Your task to perform on an android device: Go to Google maps Image 0: 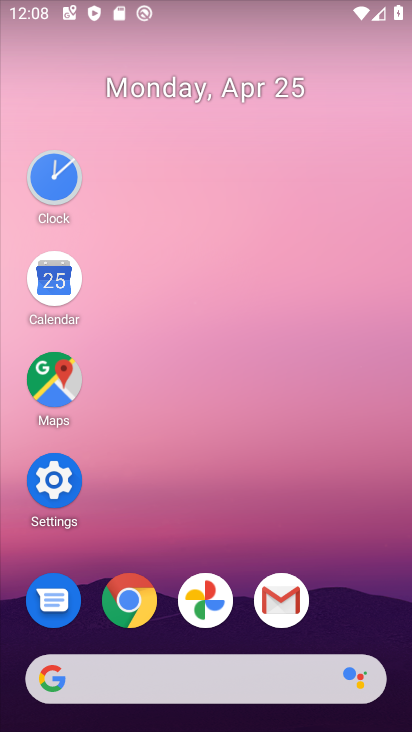
Step 0: click (50, 175)
Your task to perform on an android device: Go to Google maps Image 1: 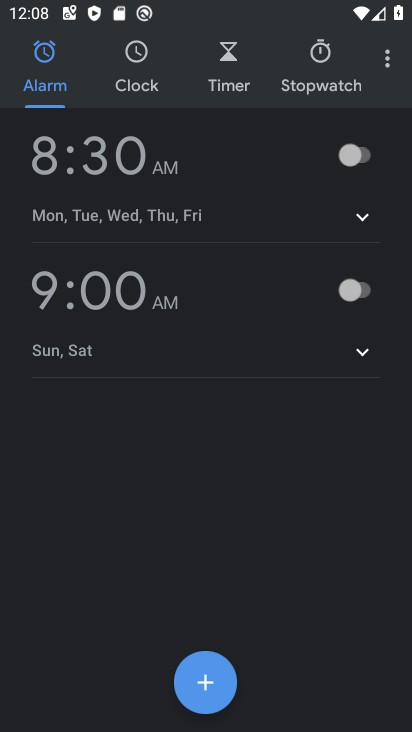
Step 1: press home button
Your task to perform on an android device: Go to Google maps Image 2: 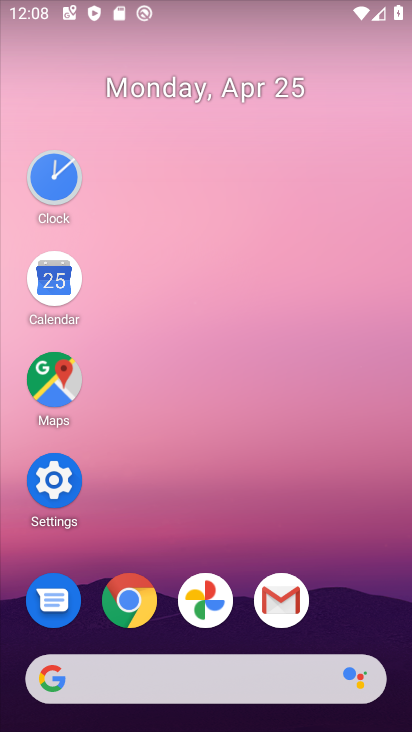
Step 2: click (52, 385)
Your task to perform on an android device: Go to Google maps Image 3: 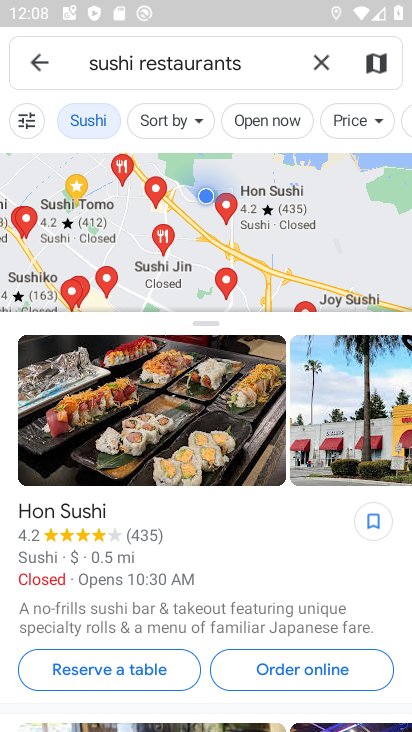
Step 3: click (316, 55)
Your task to perform on an android device: Go to Google maps Image 4: 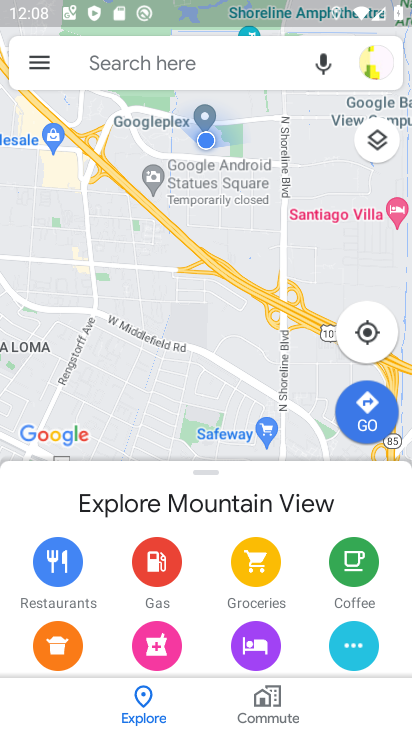
Step 4: task complete